Your task to perform on an android device: Go to notification settings Image 0: 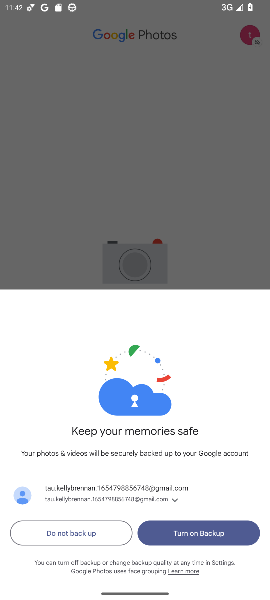
Step 0: press home button
Your task to perform on an android device: Go to notification settings Image 1: 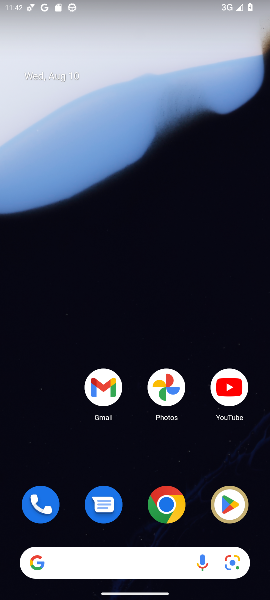
Step 1: drag from (47, 440) to (54, 1)
Your task to perform on an android device: Go to notification settings Image 2: 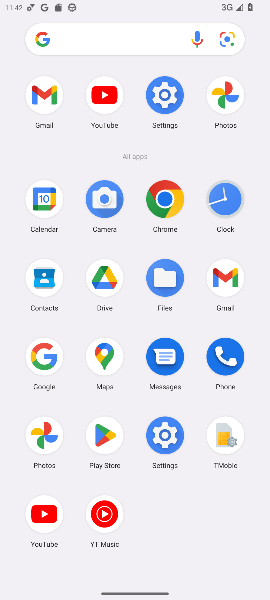
Step 2: click (159, 81)
Your task to perform on an android device: Go to notification settings Image 3: 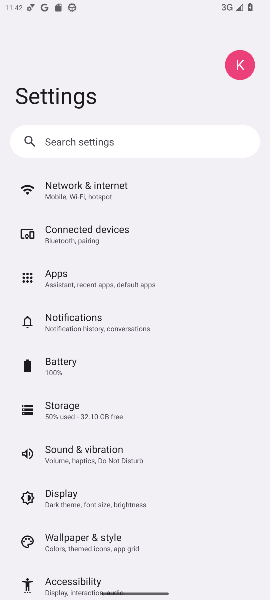
Step 3: click (103, 320)
Your task to perform on an android device: Go to notification settings Image 4: 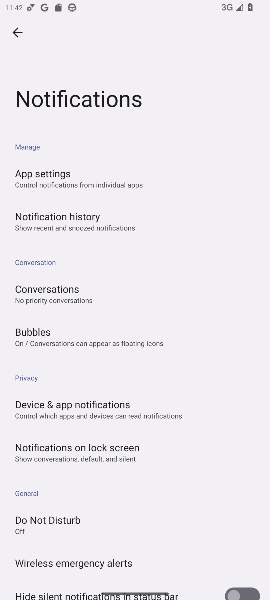
Step 4: task complete